Your task to perform on an android device: Open Yahoo.com Image 0: 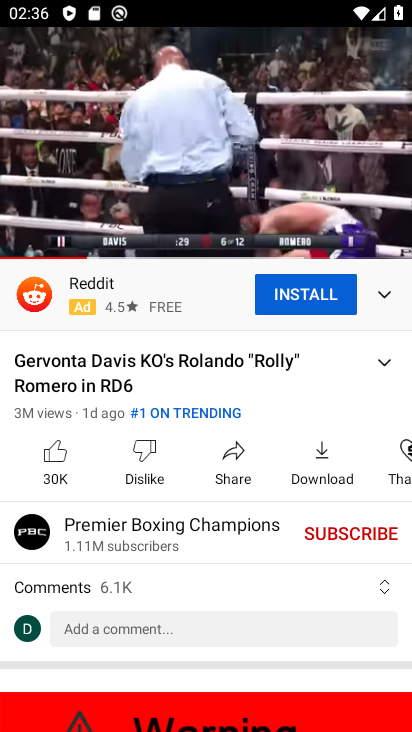
Step 0: press home button
Your task to perform on an android device: Open Yahoo.com Image 1: 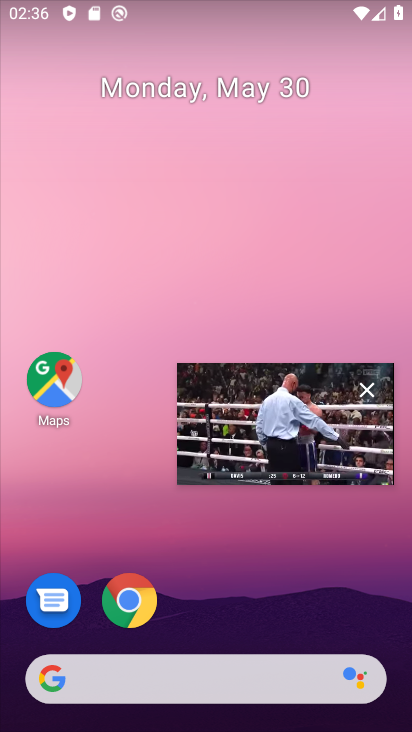
Step 1: click (372, 393)
Your task to perform on an android device: Open Yahoo.com Image 2: 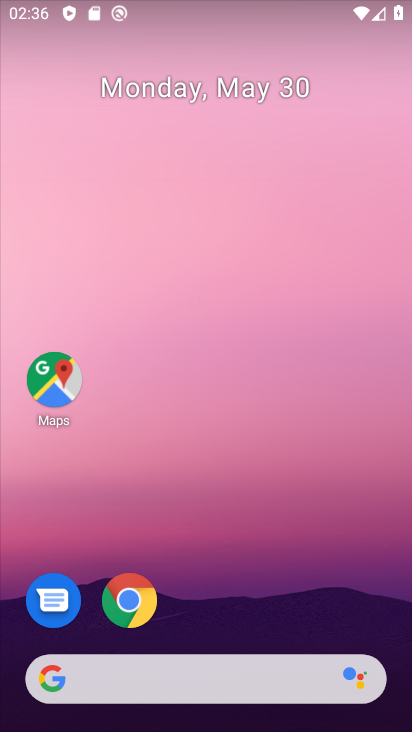
Step 2: drag from (261, 602) to (267, 42)
Your task to perform on an android device: Open Yahoo.com Image 3: 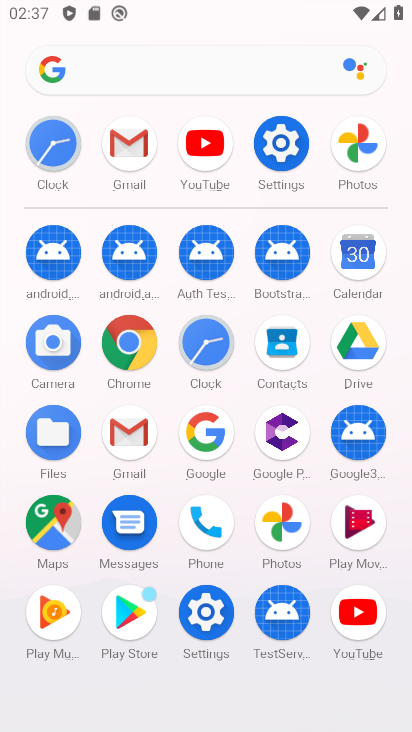
Step 3: click (132, 337)
Your task to perform on an android device: Open Yahoo.com Image 4: 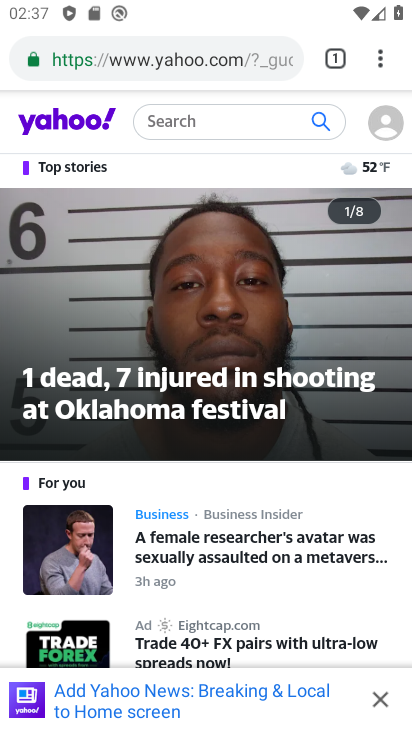
Step 4: task complete